Your task to perform on an android device: Empty the shopping cart on bestbuy.com. Search for "macbook pro" on bestbuy.com, select the first entry, and add it to the cart. Image 0: 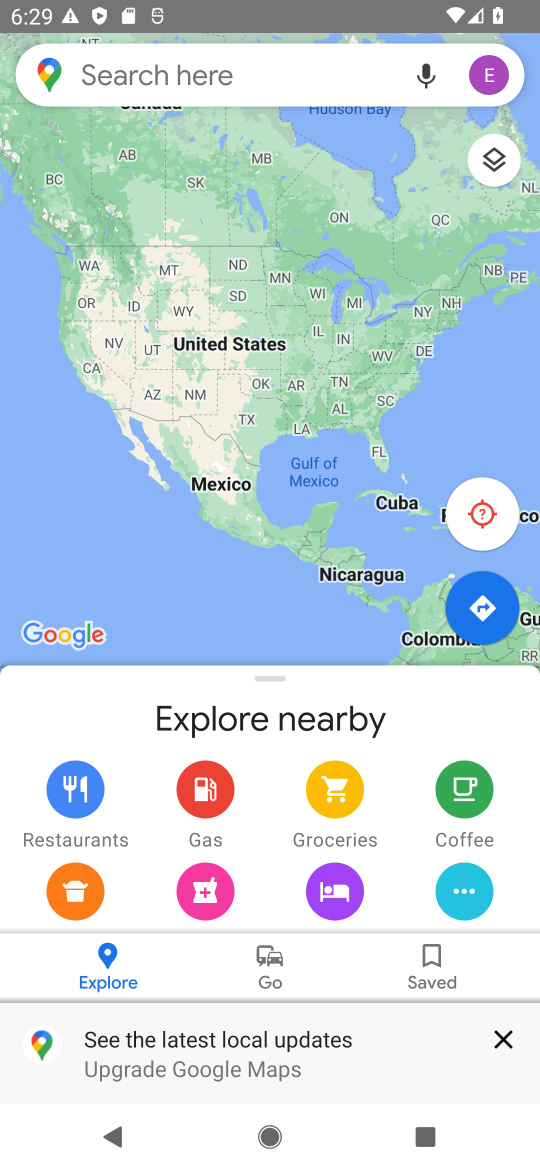
Step 0: press home button
Your task to perform on an android device: Empty the shopping cart on bestbuy.com. Search for "macbook pro" on bestbuy.com, select the first entry, and add it to the cart. Image 1: 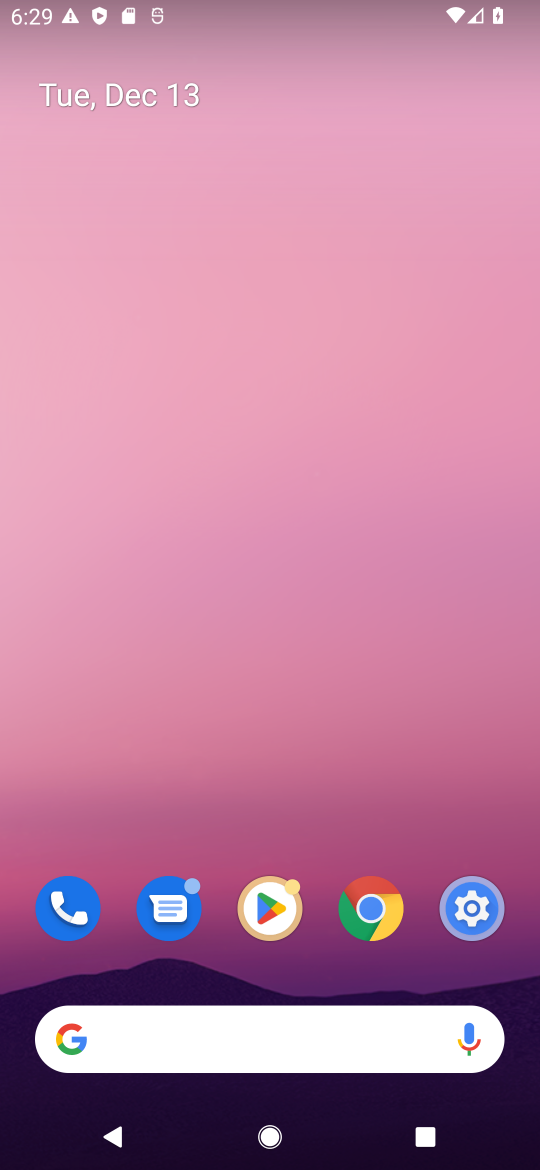
Step 1: click (113, 1031)
Your task to perform on an android device: Empty the shopping cart on bestbuy.com. Search for "macbook pro" on bestbuy.com, select the first entry, and add it to the cart. Image 2: 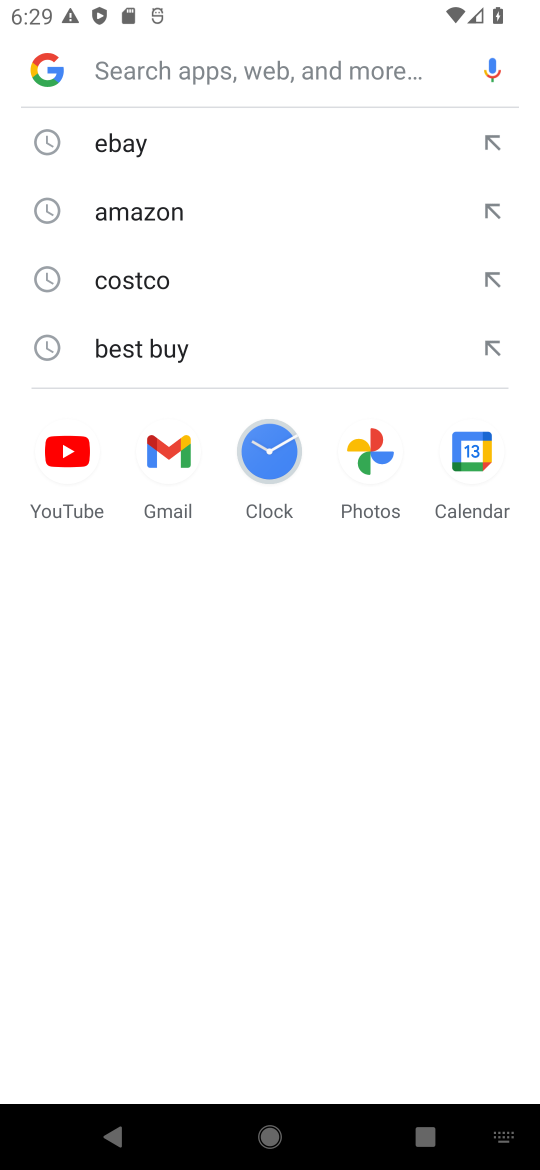
Step 2: type "bestbuy.com"
Your task to perform on an android device: Empty the shopping cart on bestbuy.com. Search for "macbook pro" on bestbuy.com, select the first entry, and add it to the cart. Image 3: 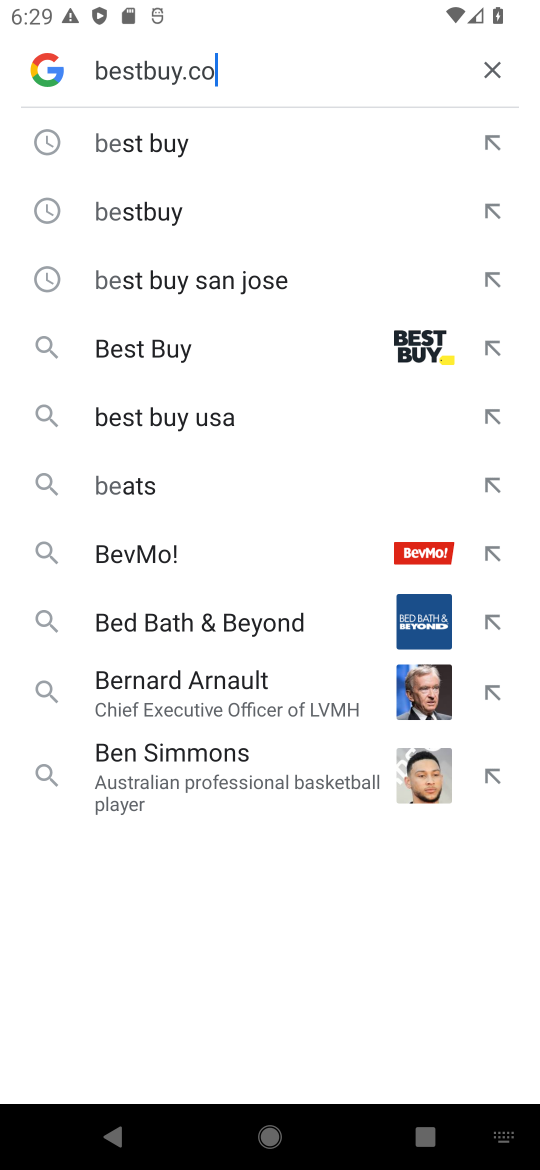
Step 3: press enter
Your task to perform on an android device: Empty the shopping cart on bestbuy.com. Search for "macbook pro" on bestbuy.com, select the first entry, and add it to the cart. Image 4: 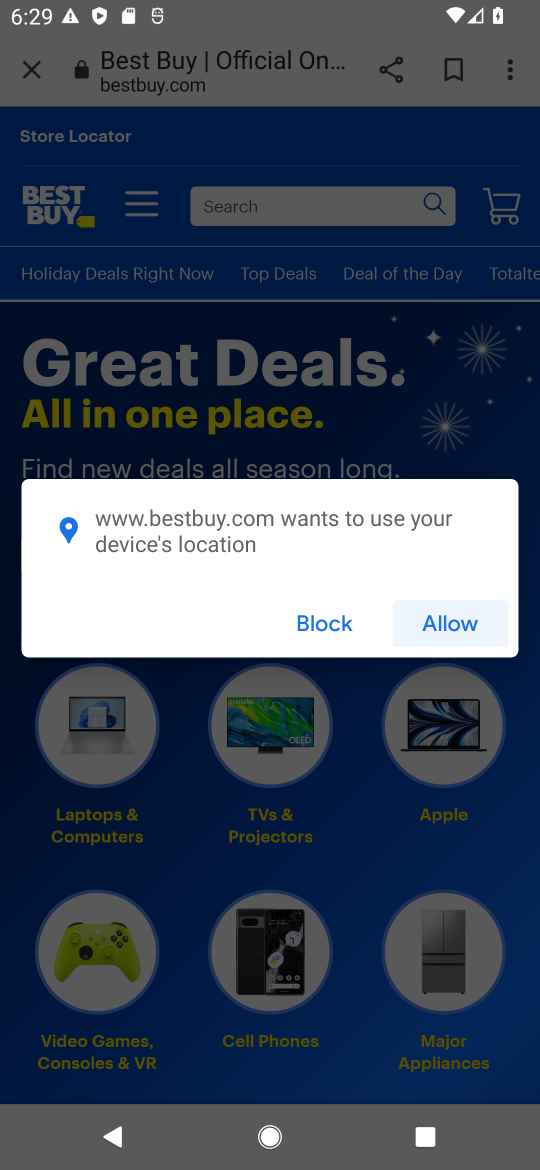
Step 4: click (301, 612)
Your task to perform on an android device: Empty the shopping cart on bestbuy.com. Search for "macbook pro" on bestbuy.com, select the first entry, and add it to the cart. Image 5: 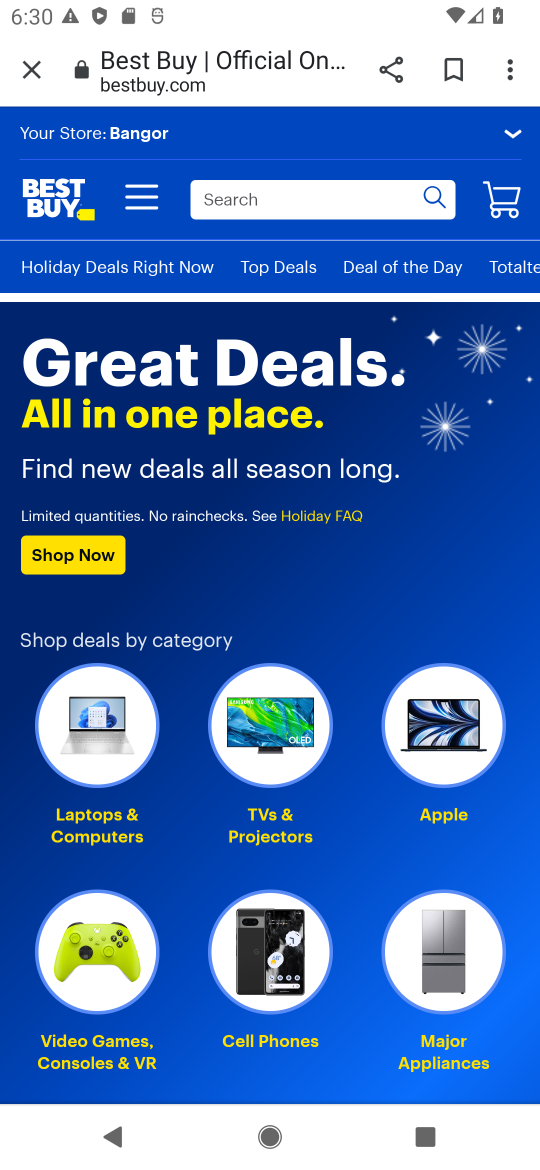
Step 5: click (507, 204)
Your task to perform on an android device: Empty the shopping cart on bestbuy.com. Search for "macbook pro" on bestbuy.com, select the first entry, and add it to the cart. Image 6: 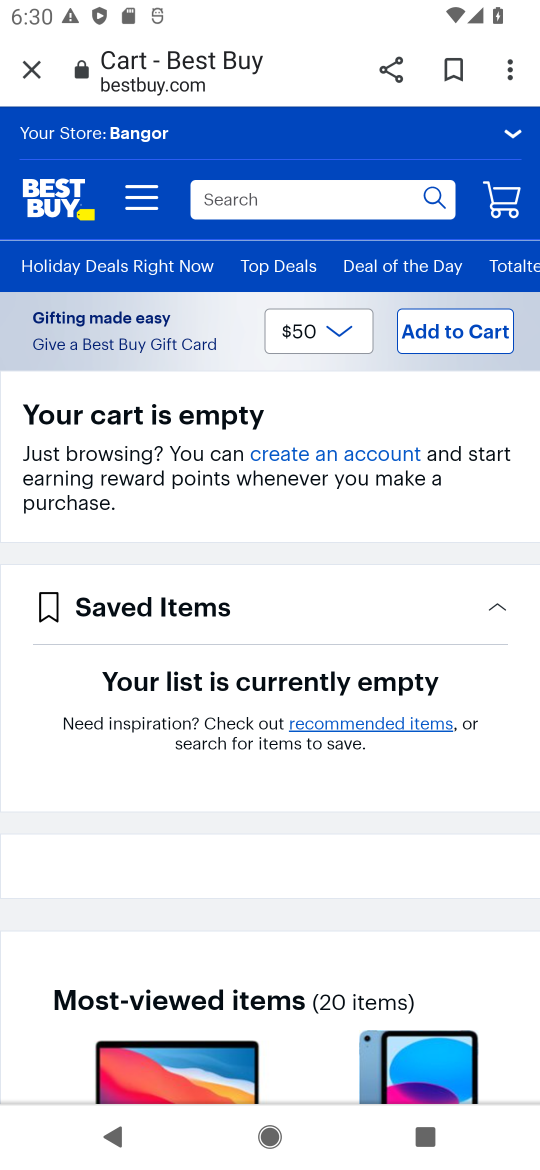
Step 6: click (230, 189)
Your task to perform on an android device: Empty the shopping cart on bestbuy.com. Search for "macbook pro" on bestbuy.com, select the first entry, and add it to the cart. Image 7: 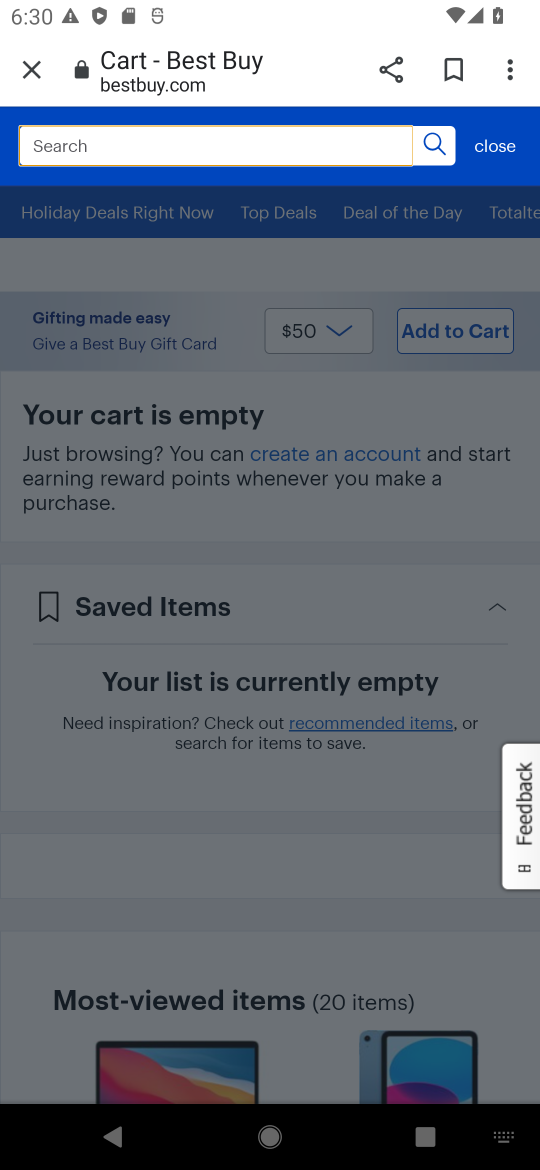
Step 7: press enter
Your task to perform on an android device: Empty the shopping cart on bestbuy.com. Search for "macbook pro" on bestbuy.com, select the first entry, and add it to the cart. Image 8: 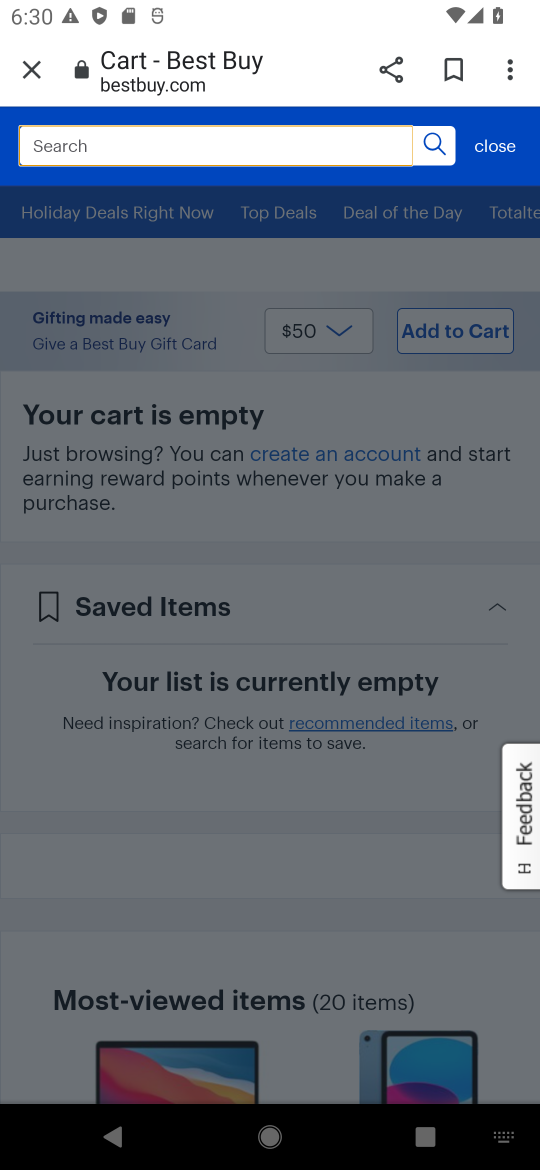
Step 8: type "macbook pro"
Your task to perform on an android device: Empty the shopping cart on bestbuy.com. Search for "macbook pro" on bestbuy.com, select the first entry, and add it to the cart. Image 9: 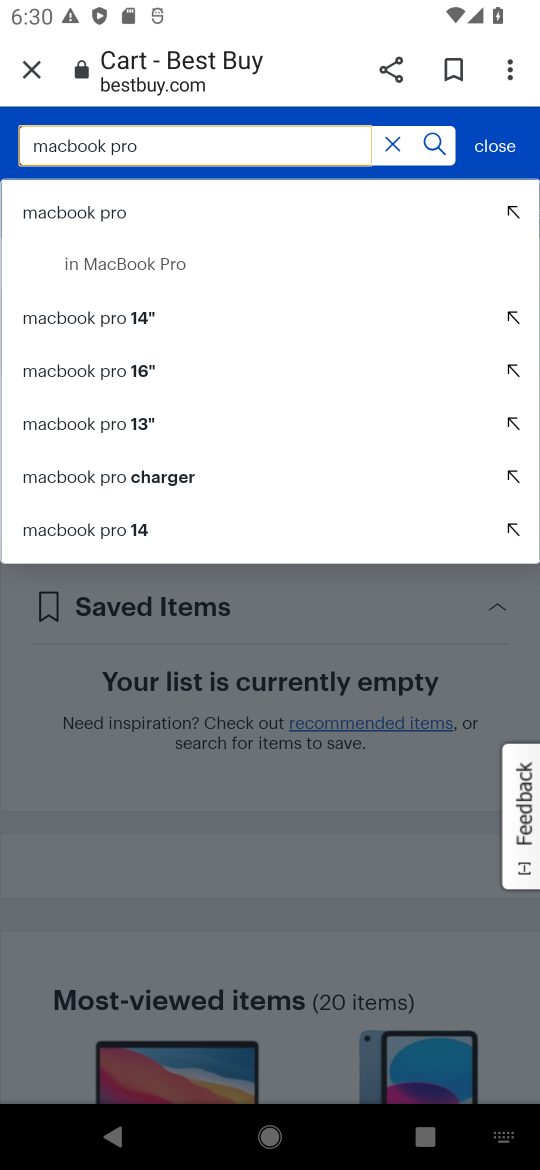
Step 9: press enter
Your task to perform on an android device: Empty the shopping cart on bestbuy.com. Search for "macbook pro" on bestbuy.com, select the first entry, and add it to the cart. Image 10: 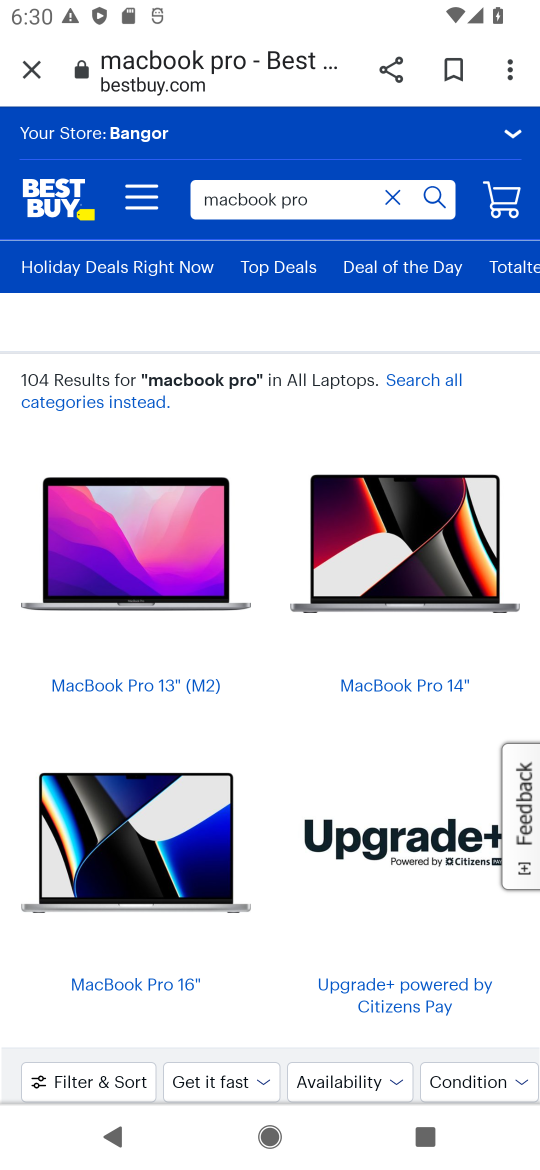
Step 10: click (373, 683)
Your task to perform on an android device: Empty the shopping cart on bestbuy.com. Search for "macbook pro" on bestbuy.com, select the first entry, and add it to the cart. Image 11: 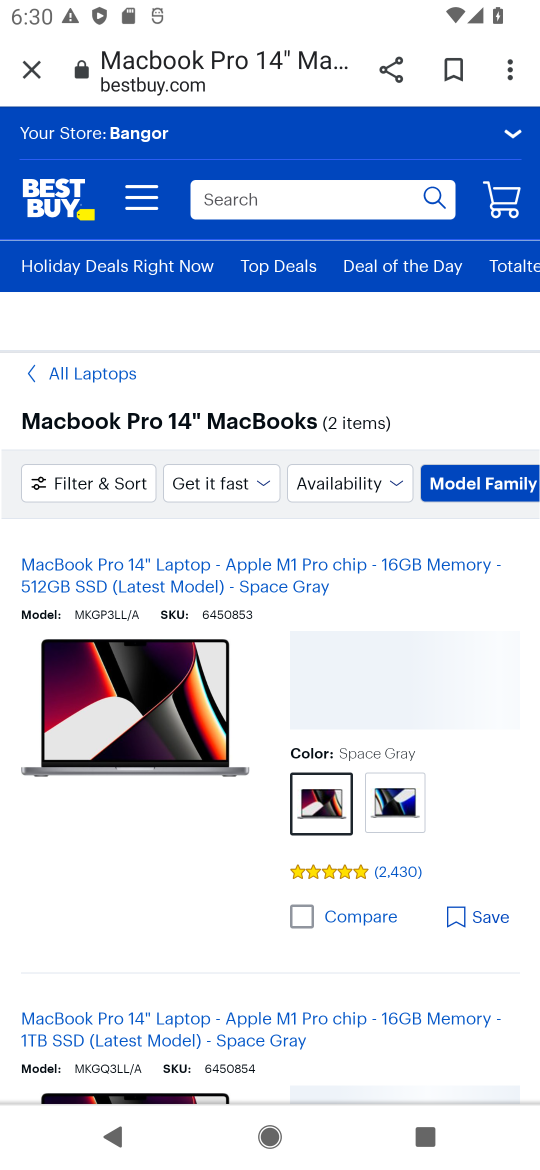
Step 11: drag from (365, 969) to (346, 440)
Your task to perform on an android device: Empty the shopping cart on bestbuy.com. Search for "macbook pro" on bestbuy.com, select the first entry, and add it to the cart. Image 12: 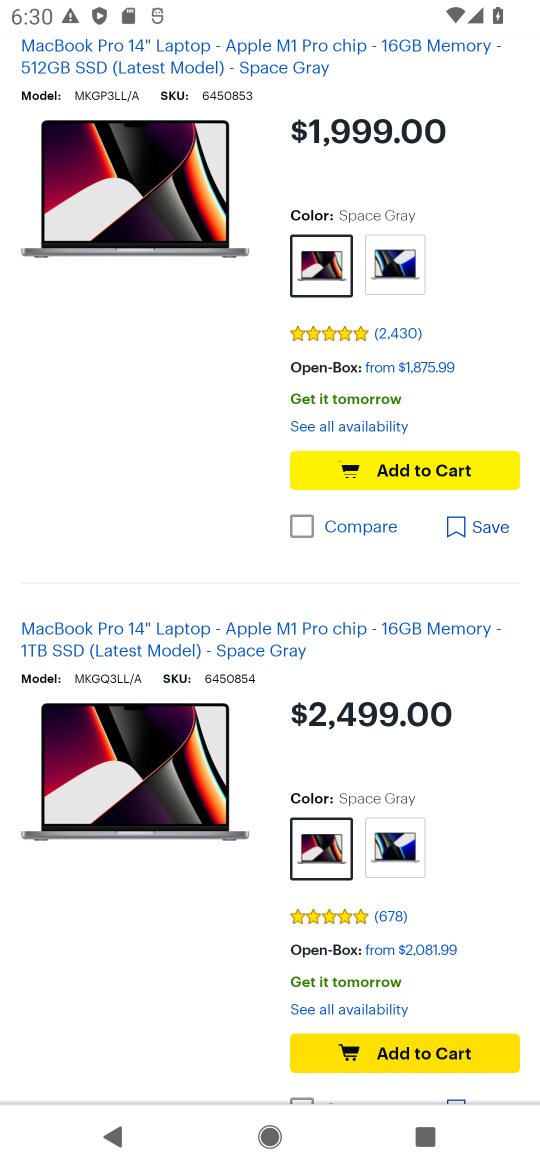
Step 12: click (396, 428)
Your task to perform on an android device: Empty the shopping cart on bestbuy.com. Search for "macbook pro" on bestbuy.com, select the first entry, and add it to the cart. Image 13: 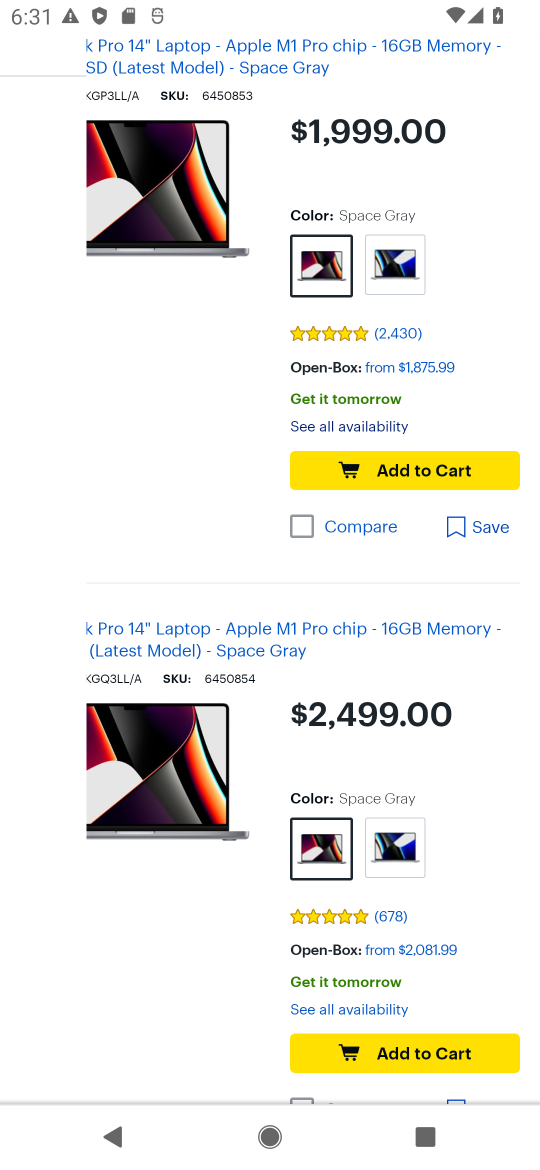
Step 13: click (404, 476)
Your task to perform on an android device: Empty the shopping cart on bestbuy.com. Search for "macbook pro" on bestbuy.com, select the first entry, and add it to the cart. Image 14: 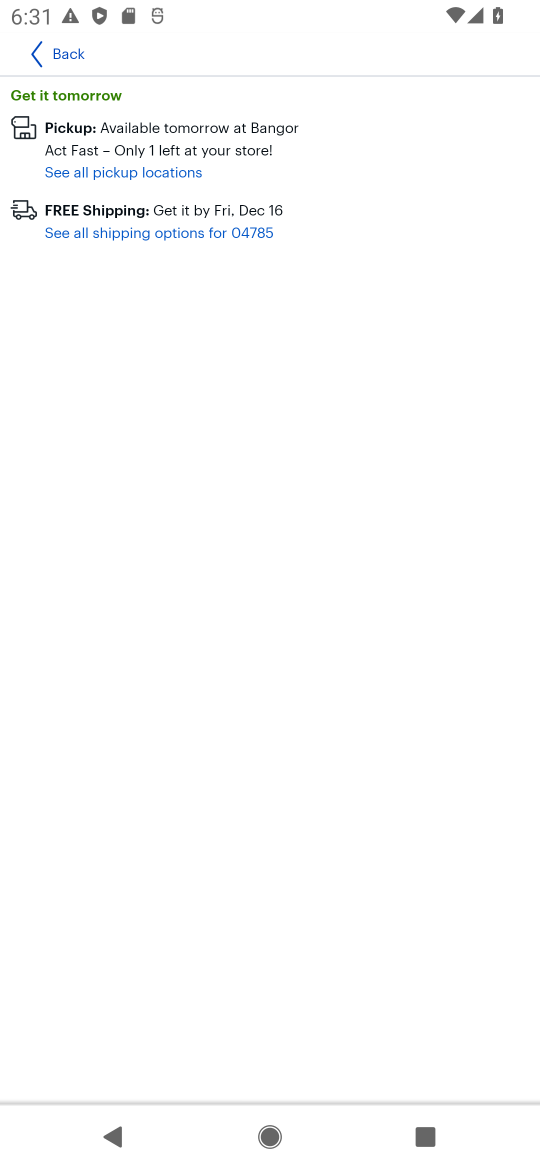
Step 14: click (242, 140)
Your task to perform on an android device: Empty the shopping cart on bestbuy.com. Search for "macbook pro" on bestbuy.com, select the first entry, and add it to the cart. Image 15: 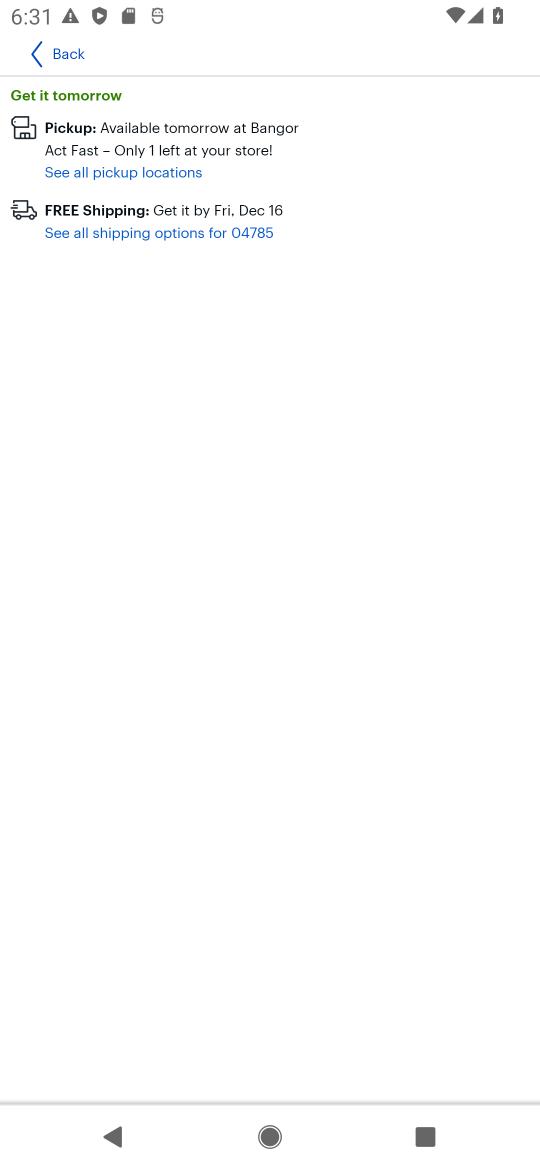
Step 15: click (102, 176)
Your task to perform on an android device: Empty the shopping cart on bestbuy.com. Search for "macbook pro" on bestbuy.com, select the first entry, and add it to the cart. Image 16: 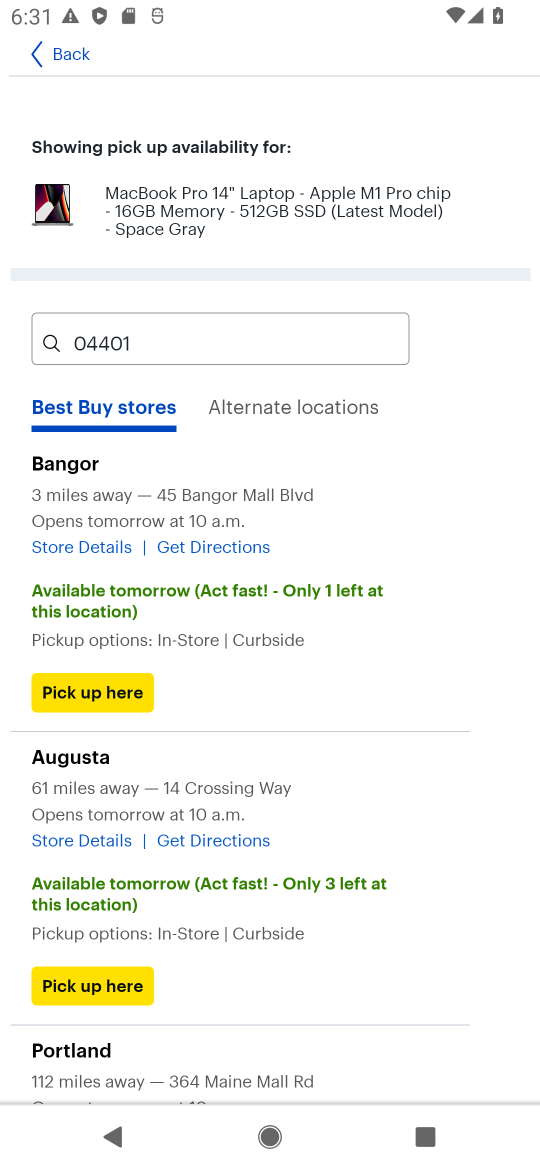
Step 16: task complete